Your task to perform on an android device: add a label to a message in the gmail app Image 0: 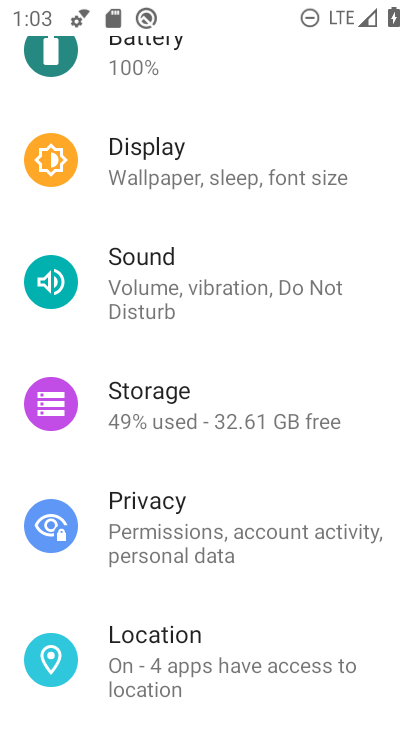
Step 0: press home button
Your task to perform on an android device: add a label to a message in the gmail app Image 1: 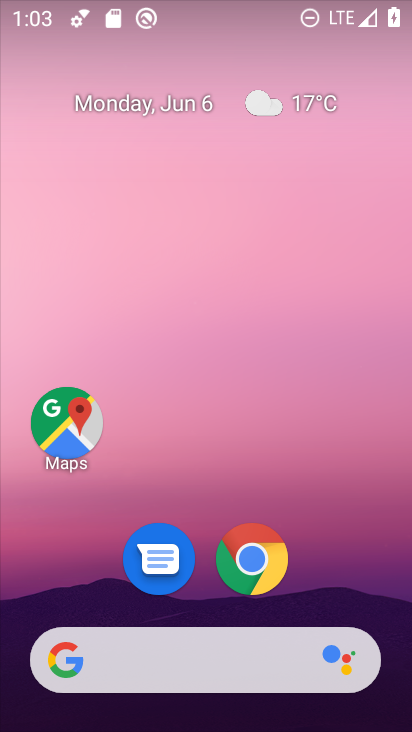
Step 1: drag from (216, 637) to (235, 162)
Your task to perform on an android device: add a label to a message in the gmail app Image 2: 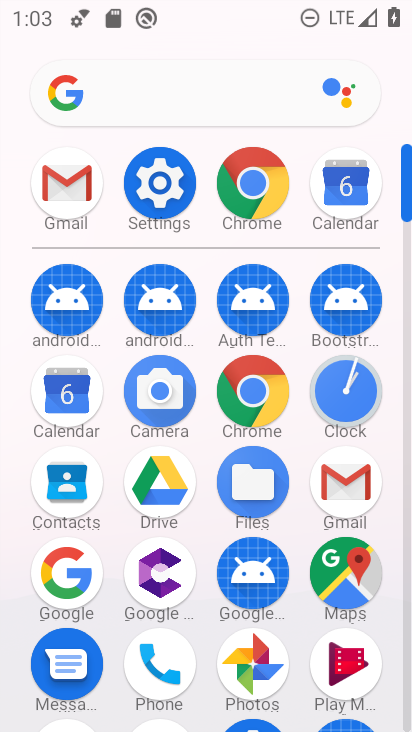
Step 2: click (337, 490)
Your task to perform on an android device: add a label to a message in the gmail app Image 3: 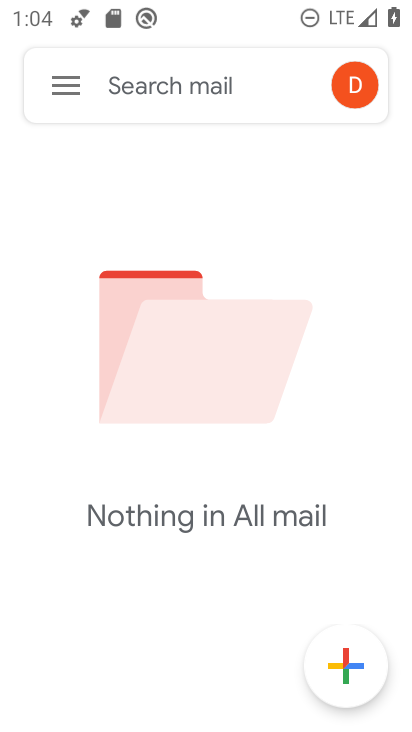
Step 3: task complete